Your task to perform on an android device: Open Wikipedia Image 0: 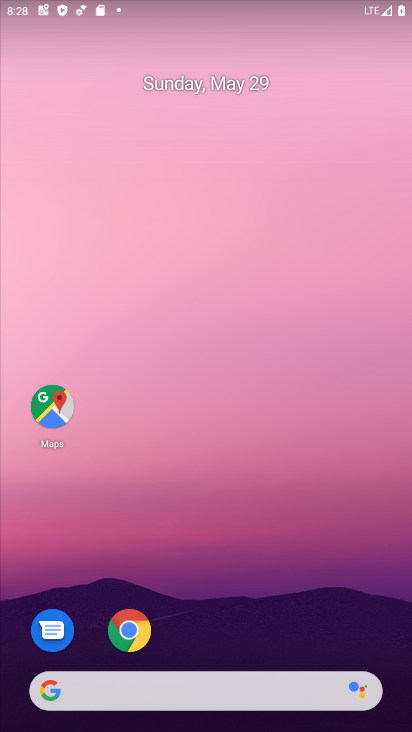
Step 0: click (143, 630)
Your task to perform on an android device: Open Wikipedia Image 1: 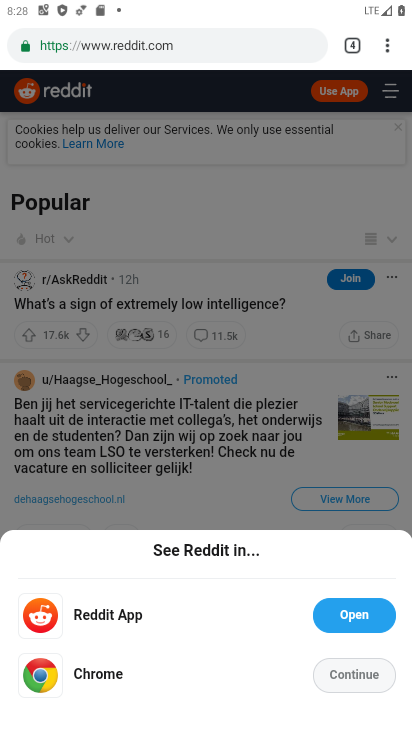
Step 1: click (349, 47)
Your task to perform on an android device: Open Wikipedia Image 2: 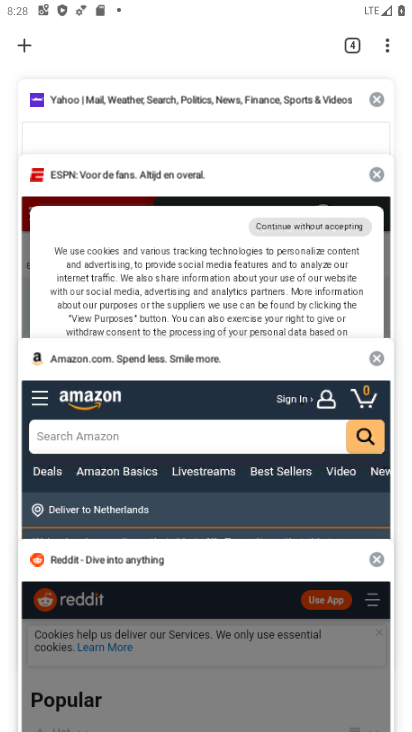
Step 2: click (22, 45)
Your task to perform on an android device: Open Wikipedia Image 3: 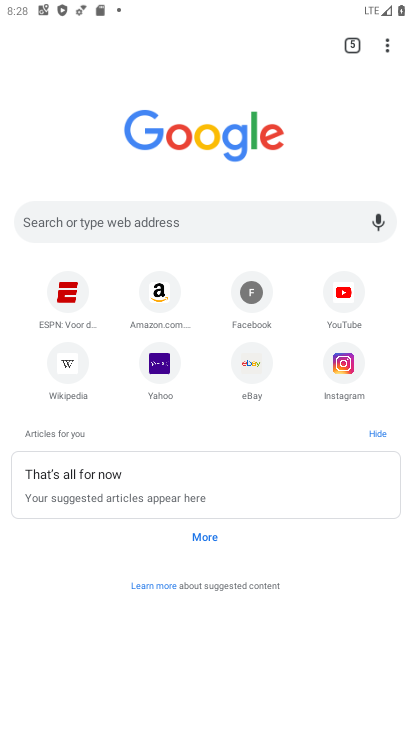
Step 3: click (75, 367)
Your task to perform on an android device: Open Wikipedia Image 4: 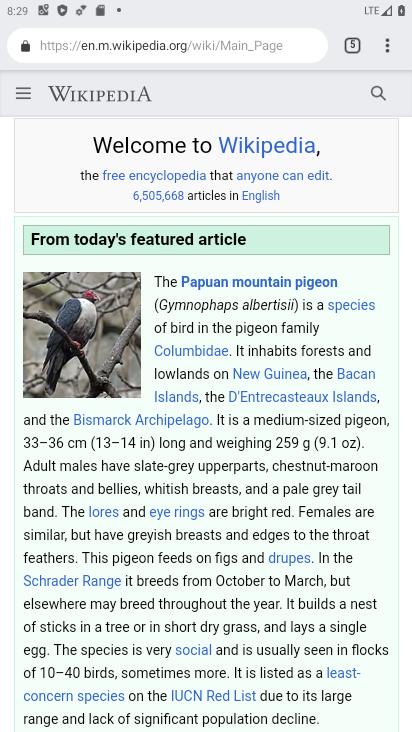
Step 4: task complete